Your task to perform on an android device: Open Yahoo.com Image 0: 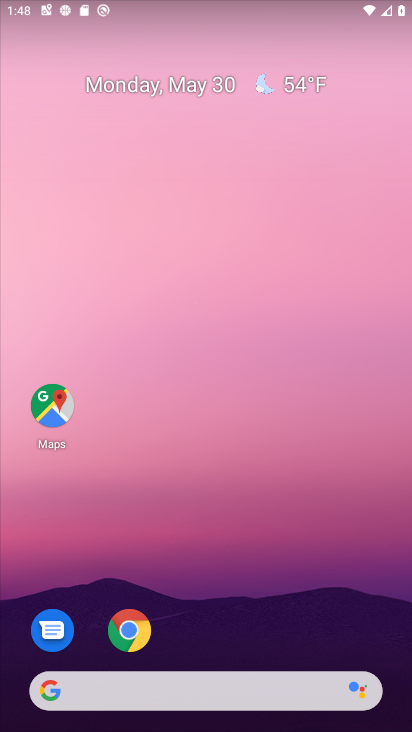
Step 0: press home button
Your task to perform on an android device: Open Yahoo.com Image 1: 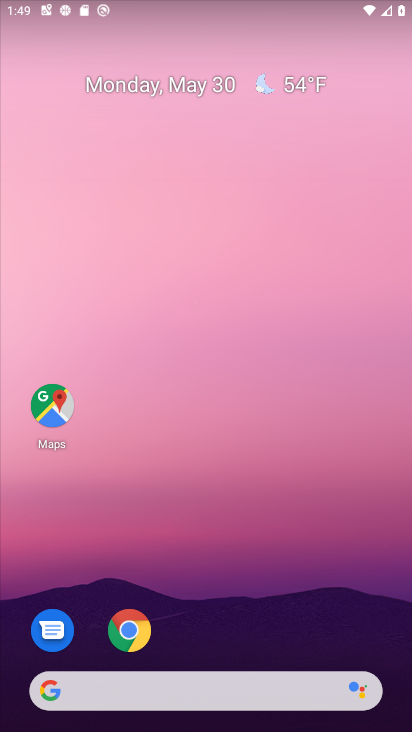
Step 1: drag from (172, 690) to (327, 91)
Your task to perform on an android device: Open Yahoo.com Image 2: 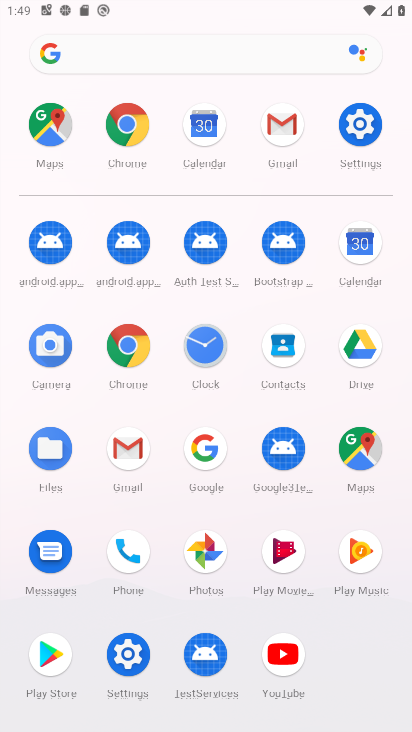
Step 2: click (127, 127)
Your task to perform on an android device: Open Yahoo.com Image 3: 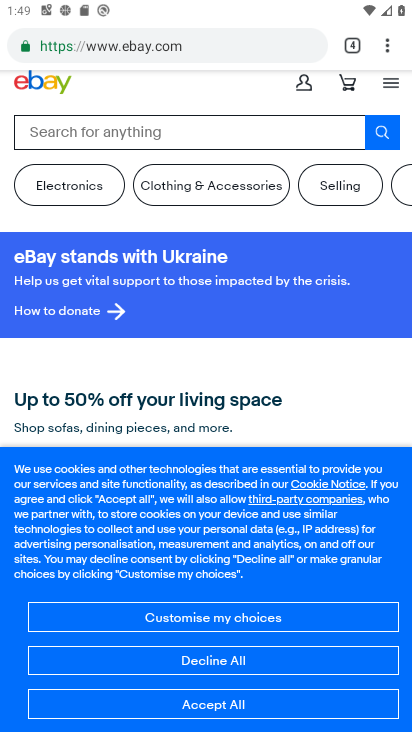
Step 3: drag from (384, 44) to (280, 86)
Your task to perform on an android device: Open Yahoo.com Image 4: 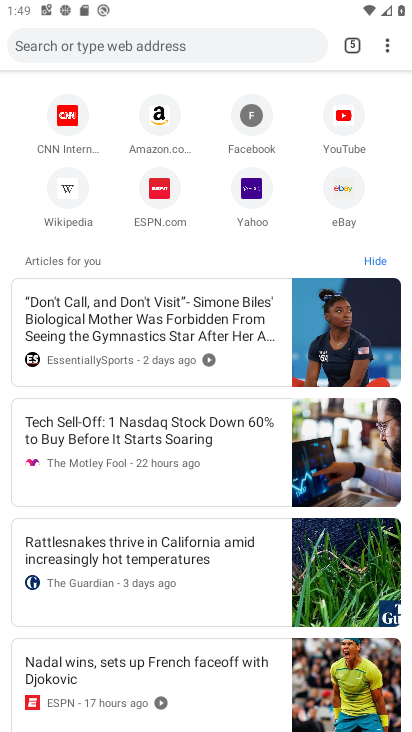
Step 4: click (261, 187)
Your task to perform on an android device: Open Yahoo.com Image 5: 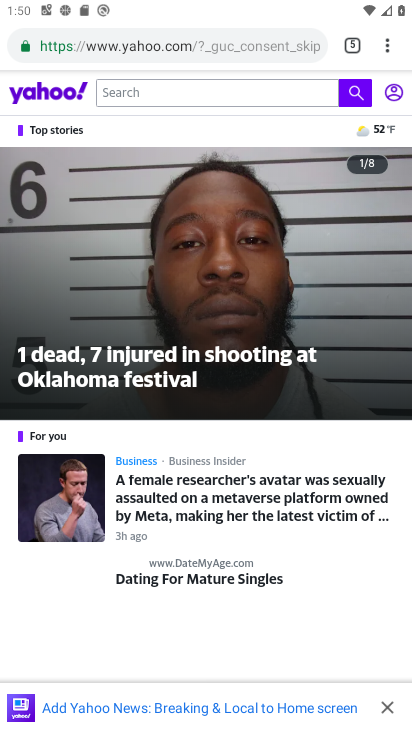
Step 5: task complete